Your task to perform on an android device: turn off notifications in google photos Image 0: 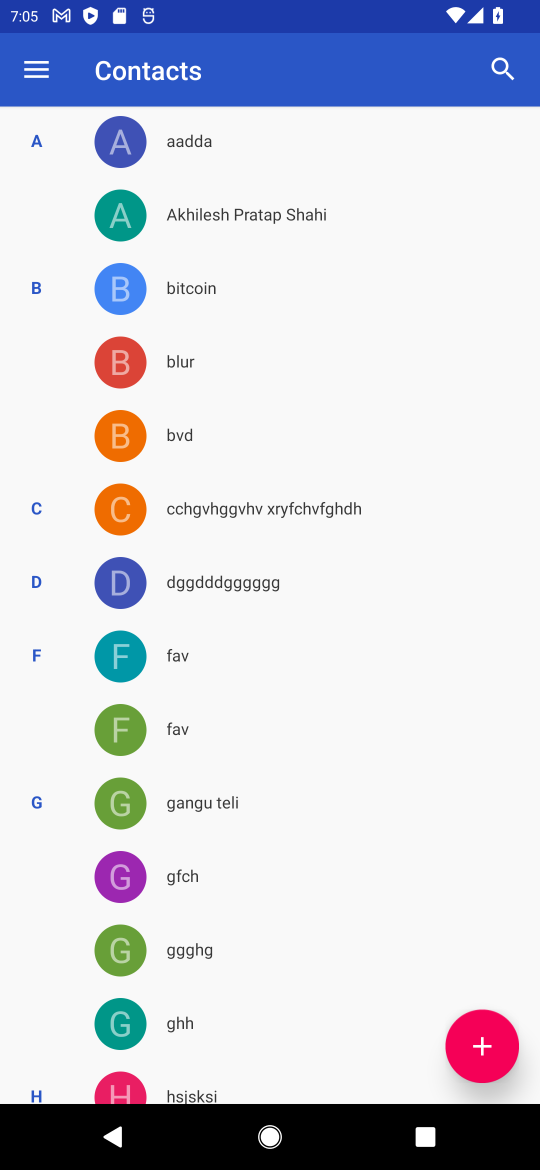
Step 0: press home button
Your task to perform on an android device: turn off notifications in google photos Image 1: 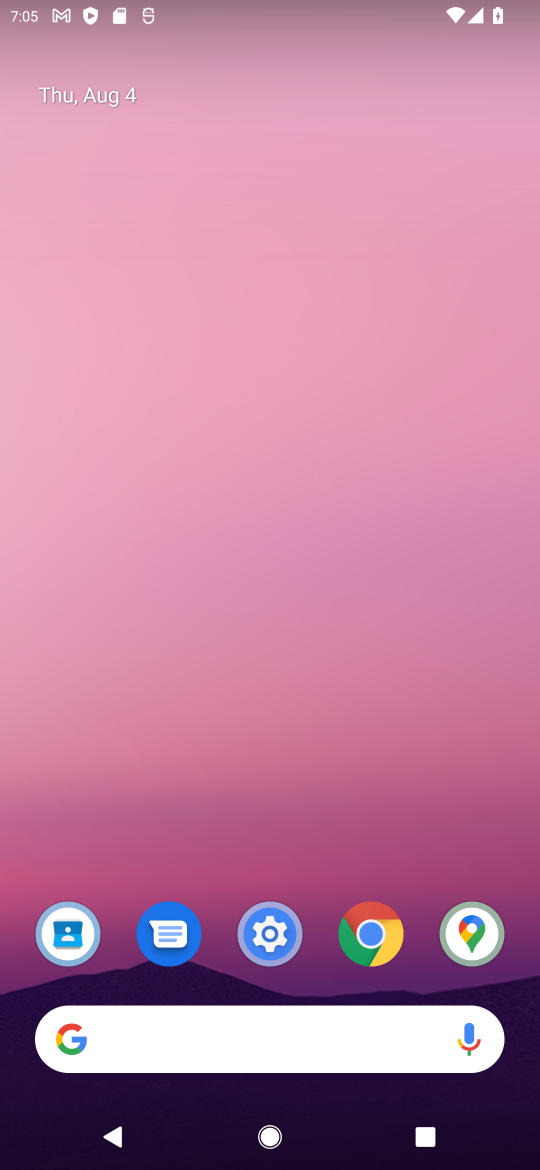
Step 1: drag from (258, 1037) to (229, 179)
Your task to perform on an android device: turn off notifications in google photos Image 2: 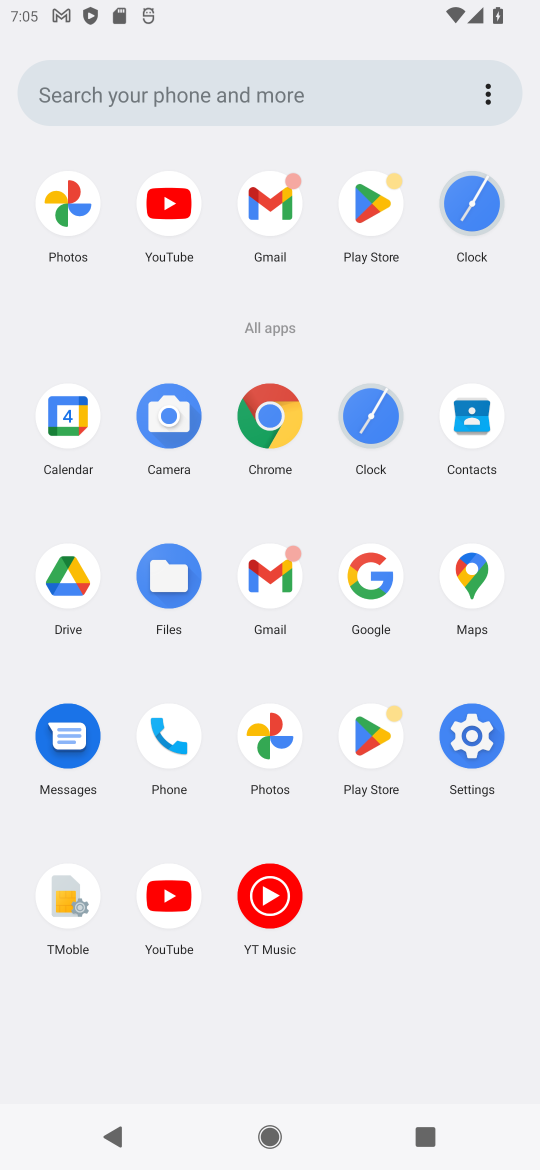
Step 2: click (261, 735)
Your task to perform on an android device: turn off notifications in google photos Image 3: 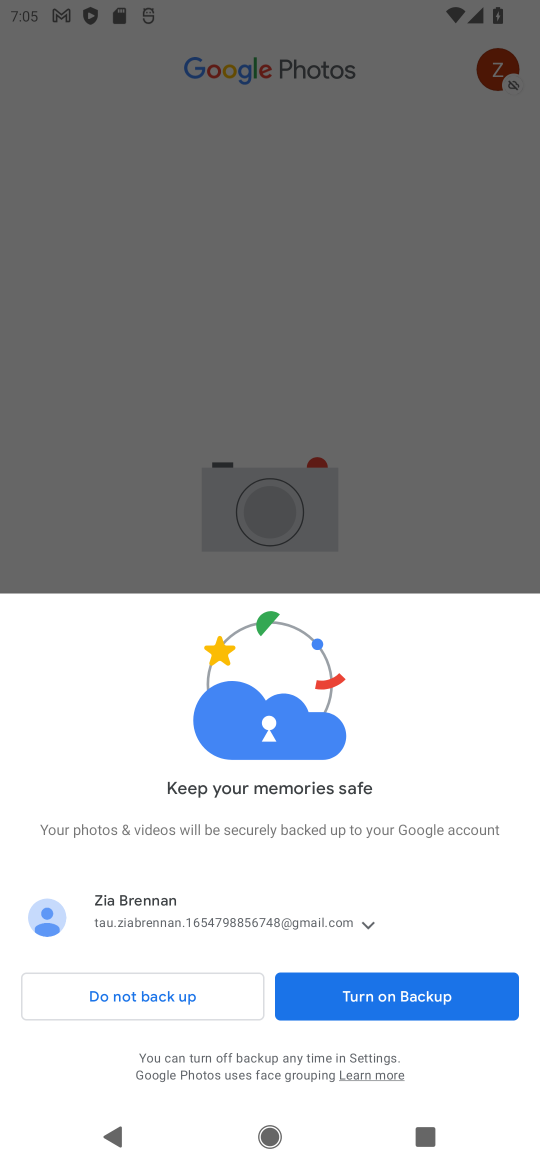
Step 3: click (358, 1016)
Your task to perform on an android device: turn off notifications in google photos Image 4: 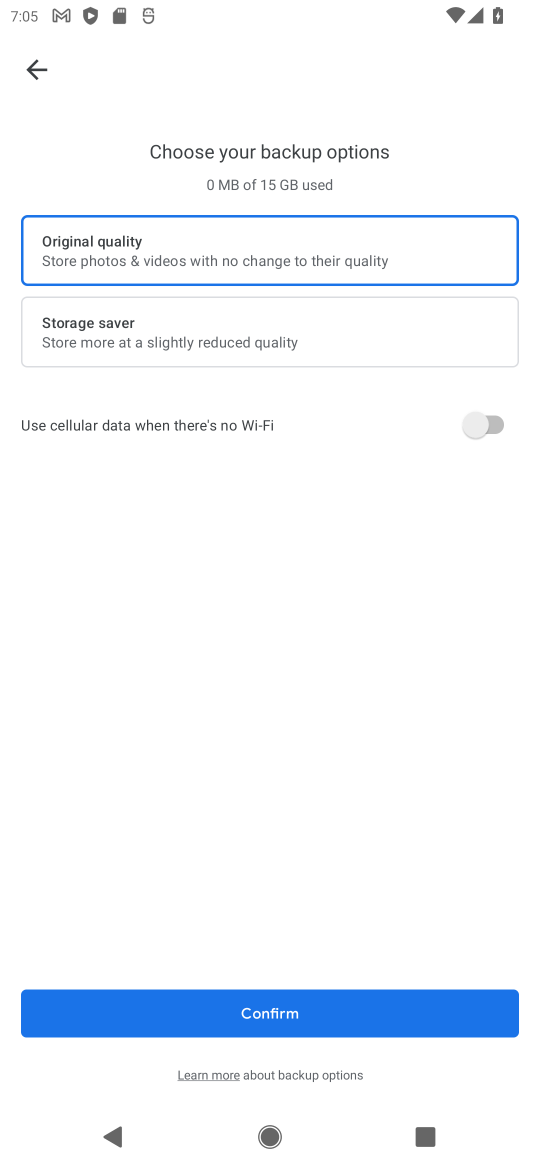
Step 4: click (358, 1016)
Your task to perform on an android device: turn off notifications in google photos Image 5: 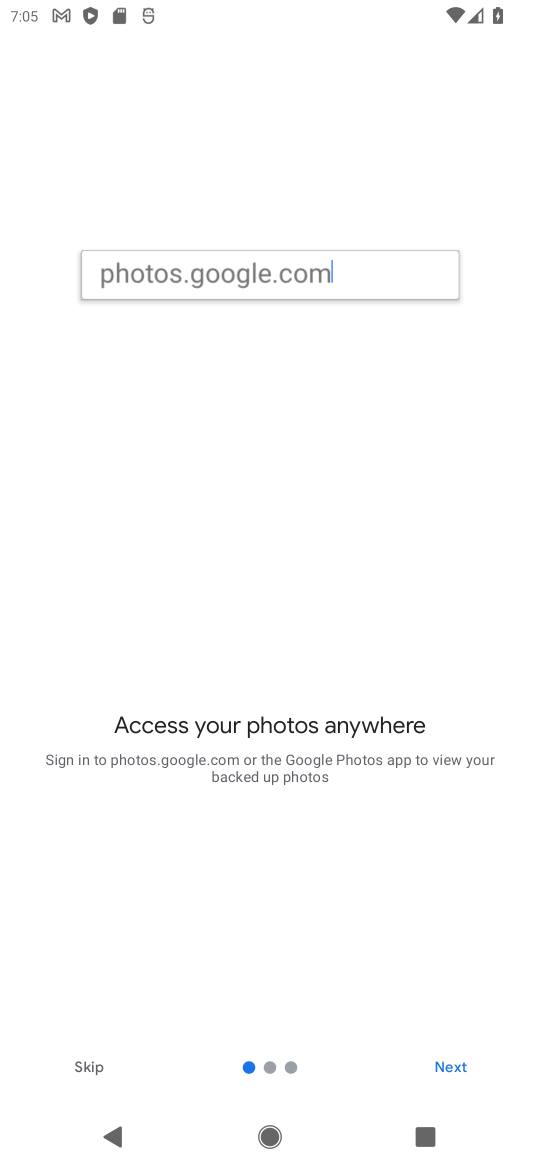
Step 5: click (86, 1074)
Your task to perform on an android device: turn off notifications in google photos Image 6: 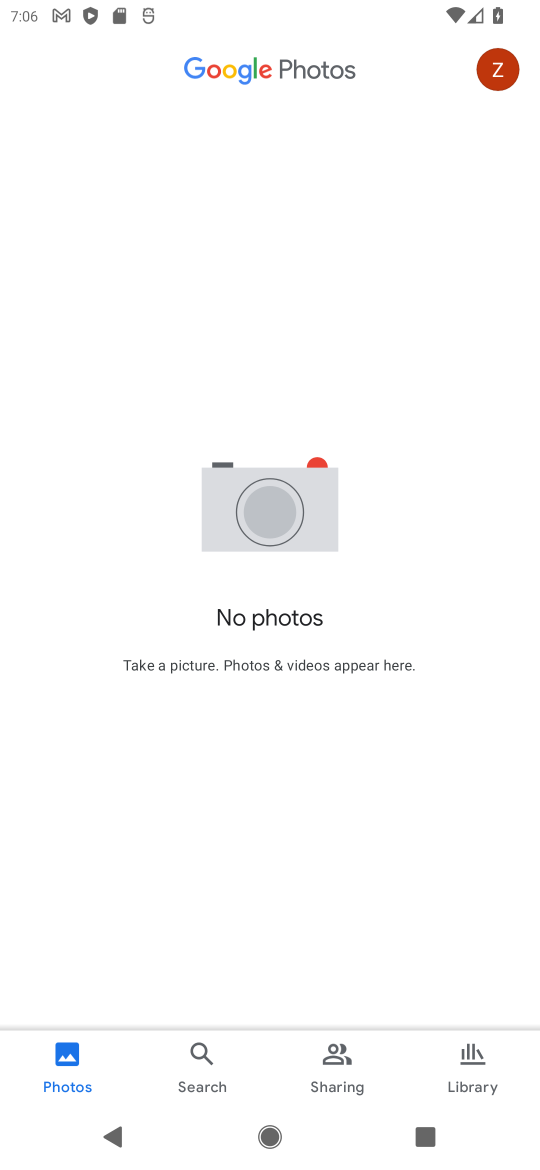
Step 6: click (501, 96)
Your task to perform on an android device: turn off notifications in google photos Image 7: 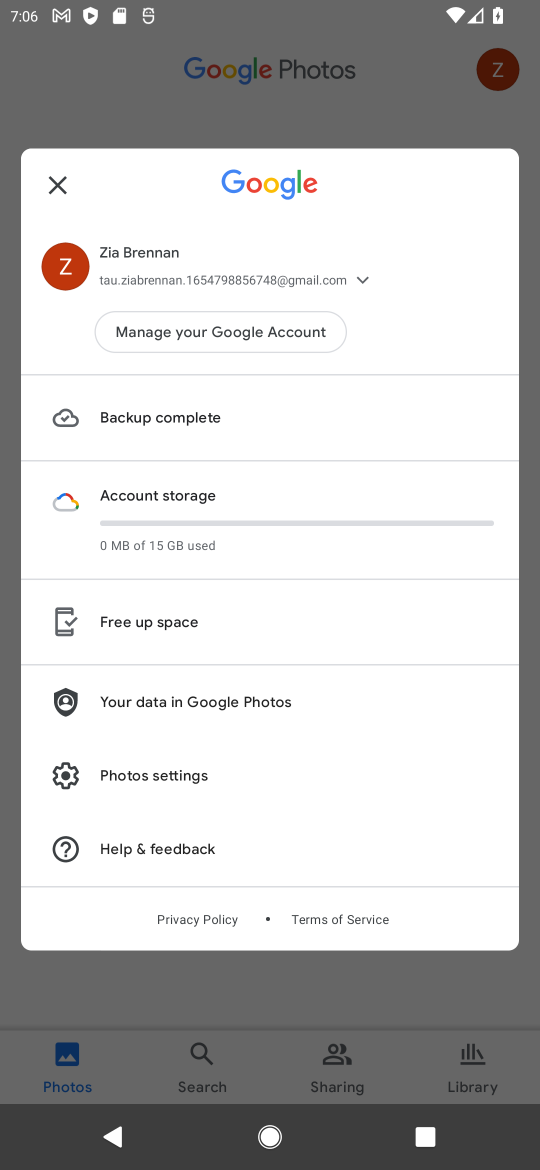
Step 7: click (171, 782)
Your task to perform on an android device: turn off notifications in google photos Image 8: 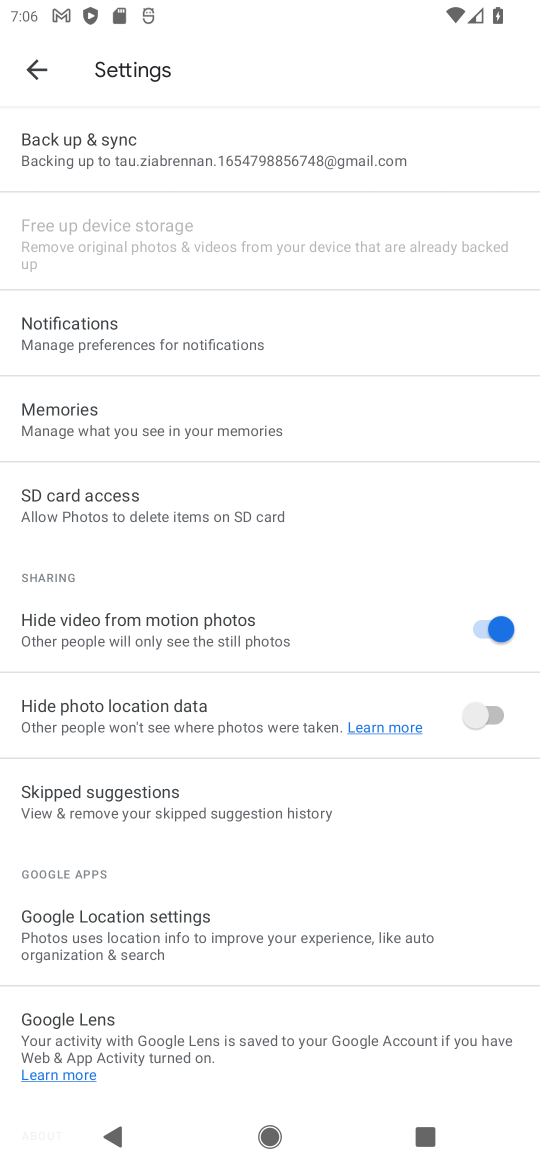
Step 8: click (149, 311)
Your task to perform on an android device: turn off notifications in google photos Image 9: 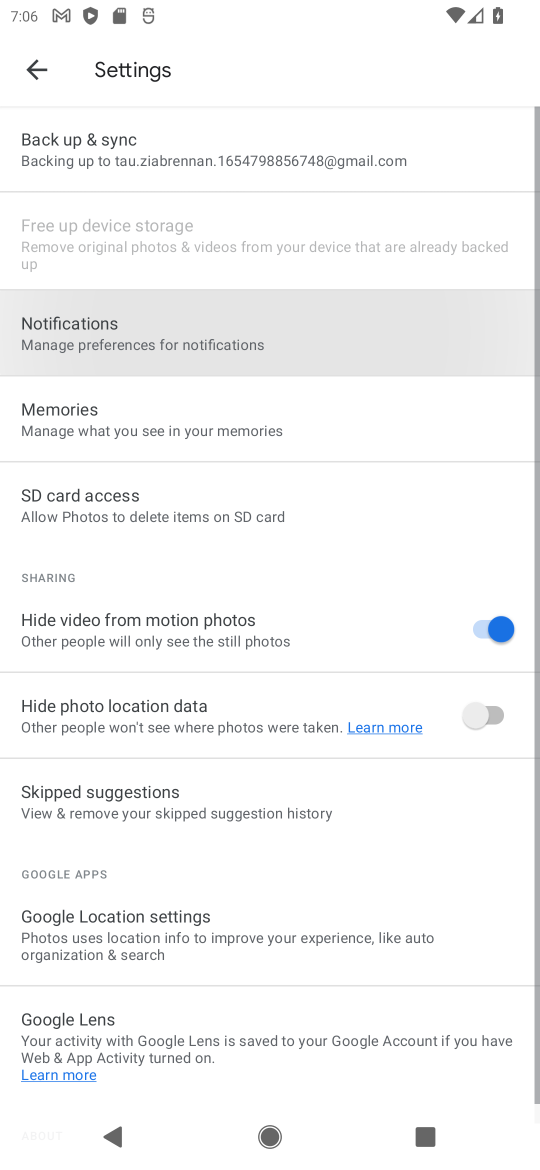
Step 9: click (149, 311)
Your task to perform on an android device: turn off notifications in google photos Image 10: 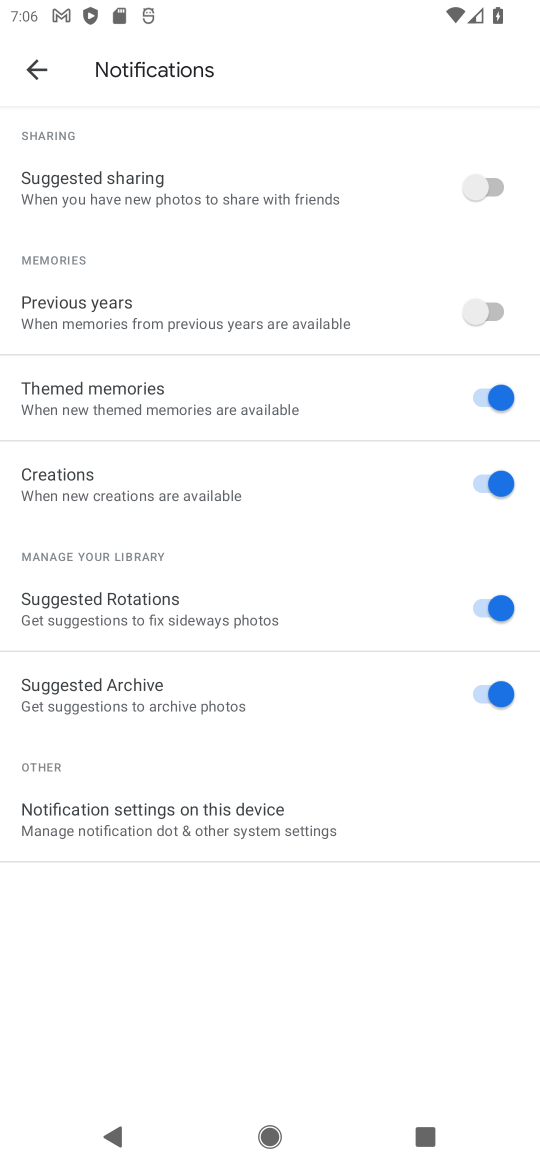
Step 10: click (113, 311)
Your task to perform on an android device: turn off notifications in google photos Image 11: 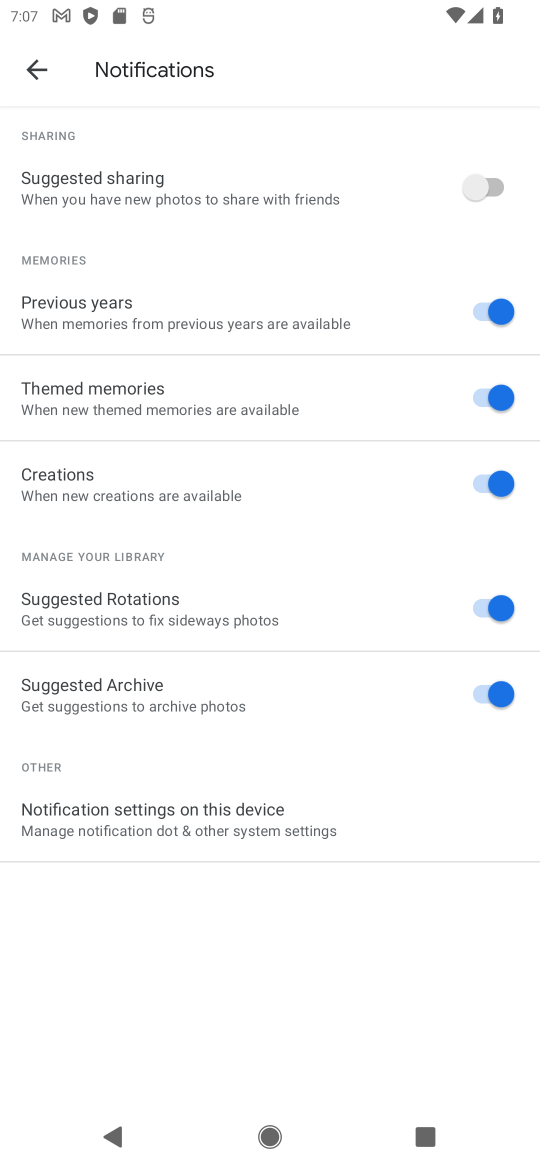
Step 11: click (370, 808)
Your task to perform on an android device: turn off notifications in google photos Image 12: 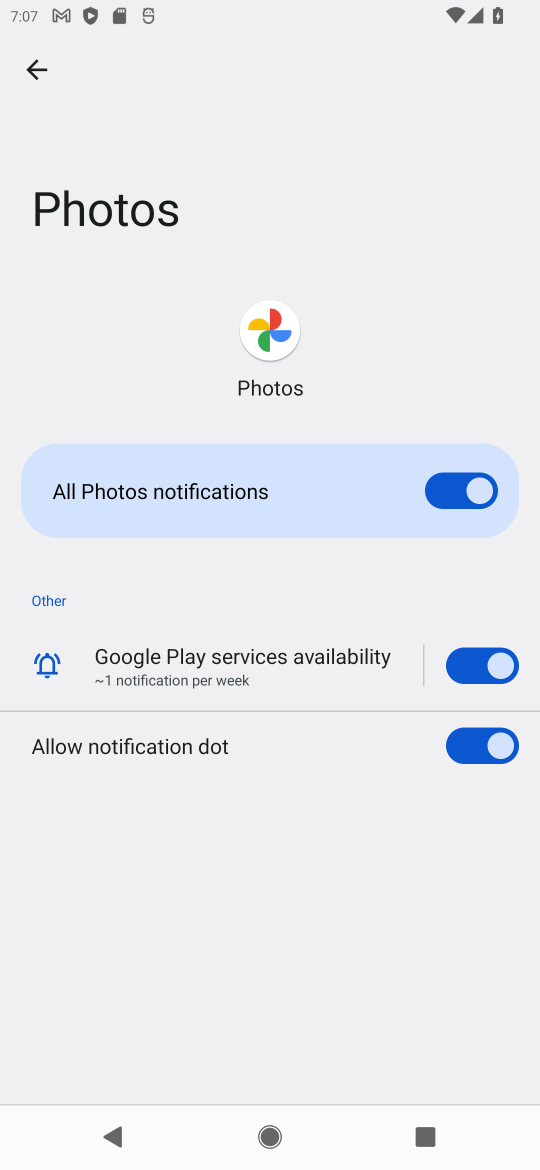
Step 12: click (458, 490)
Your task to perform on an android device: turn off notifications in google photos Image 13: 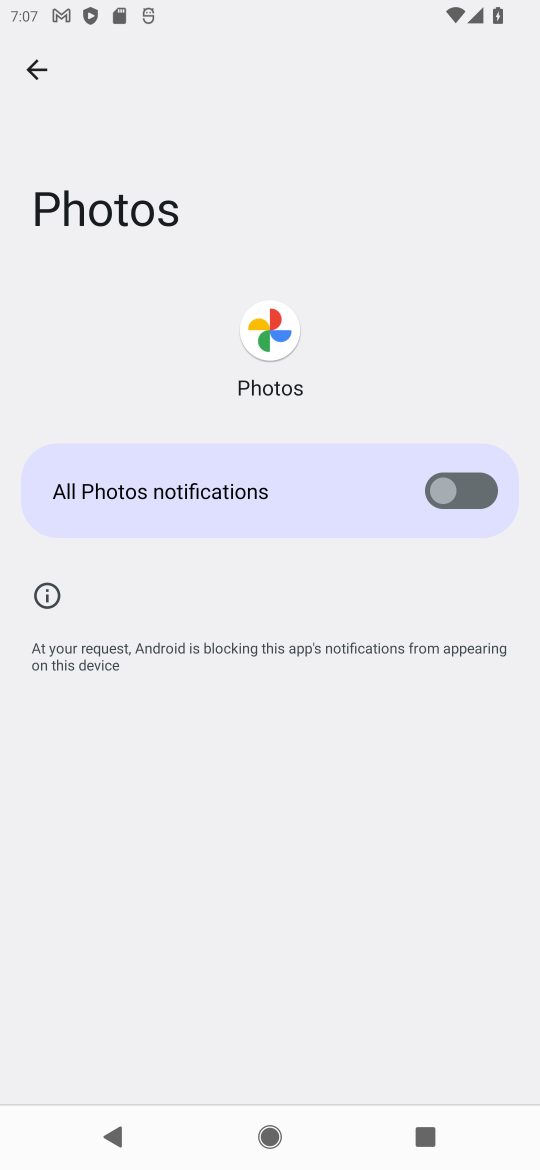
Step 13: task complete